Your task to perform on an android device: Open Reddit.com Image 0: 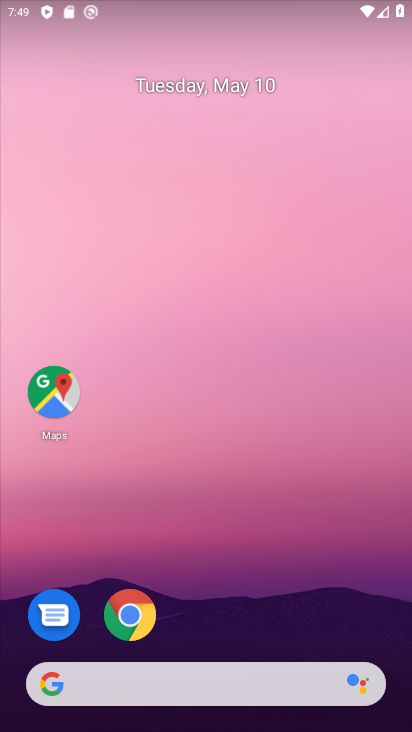
Step 0: click (204, 251)
Your task to perform on an android device: Open Reddit.com Image 1: 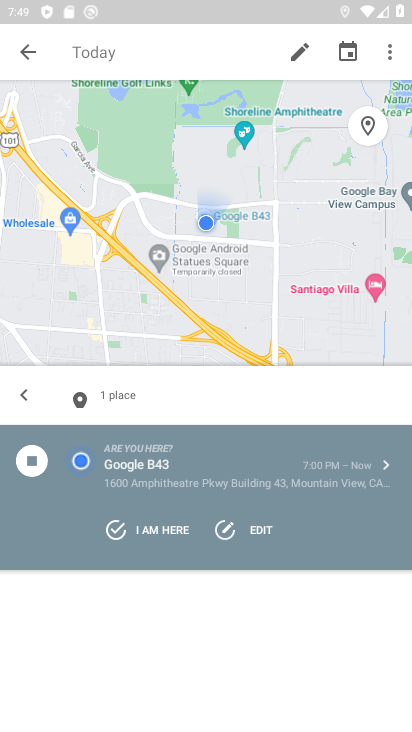
Step 1: press home button
Your task to perform on an android device: Open Reddit.com Image 2: 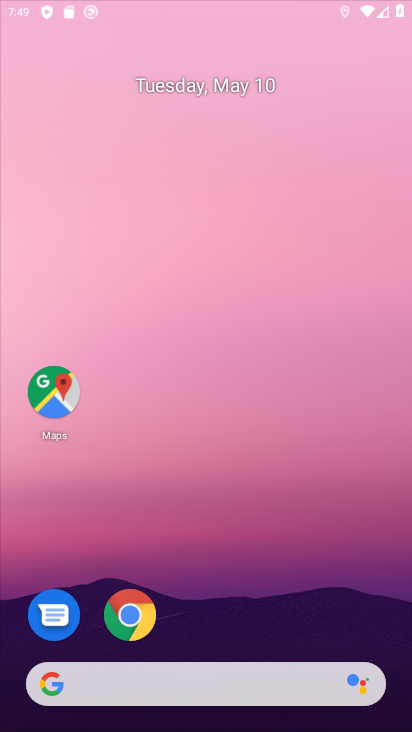
Step 2: drag from (197, 683) to (342, 235)
Your task to perform on an android device: Open Reddit.com Image 3: 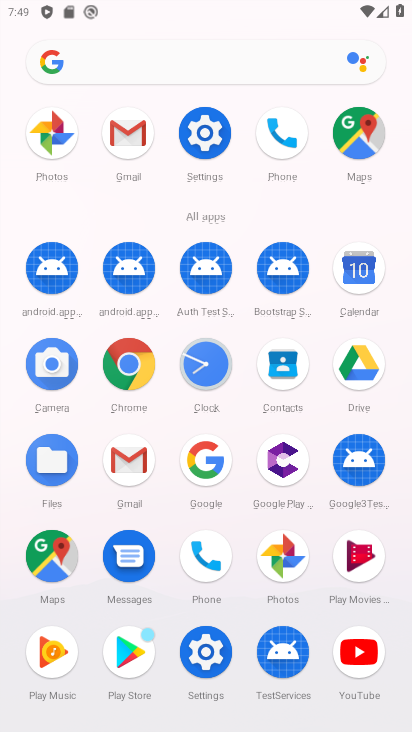
Step 3: click (112, 63)
Your task to perform on an android device: Open Reddit.com Image 4: 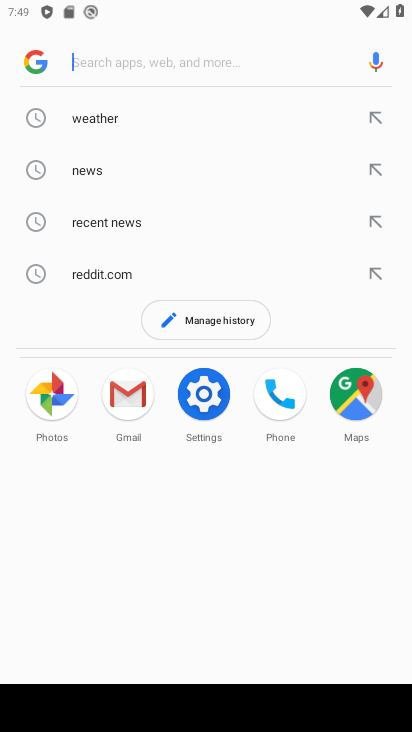
Step 4: click (102, 266)
Your task to perform on an android device: Open Reddit.com Image 5: 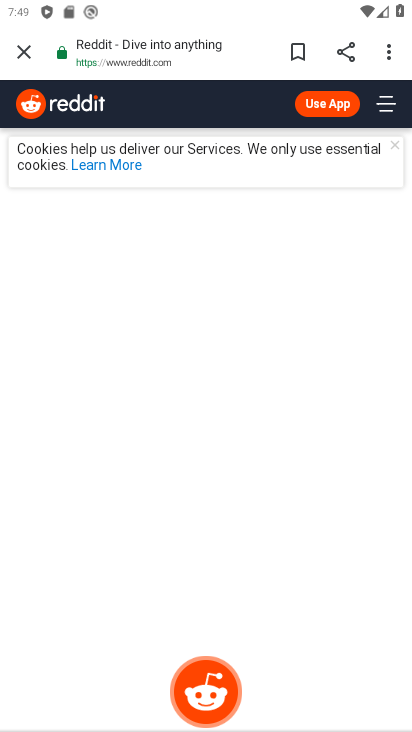
Step 5: task complete